Your task to perform on an android device: Go to Wikipedia Image 0: 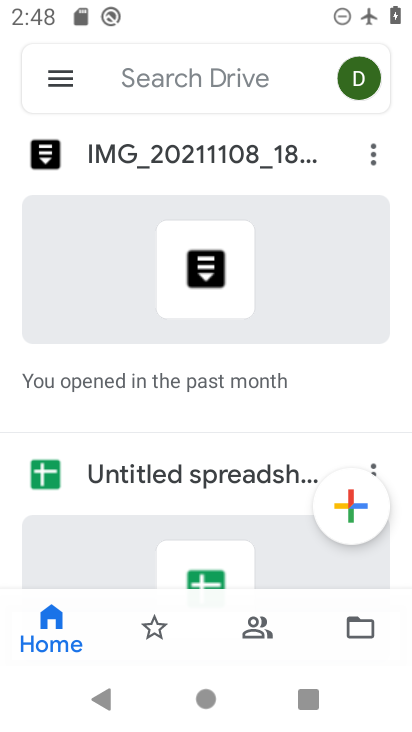
Step 0: press home button
Your task to perform on an android device: Go to Wikipedia Image 1: 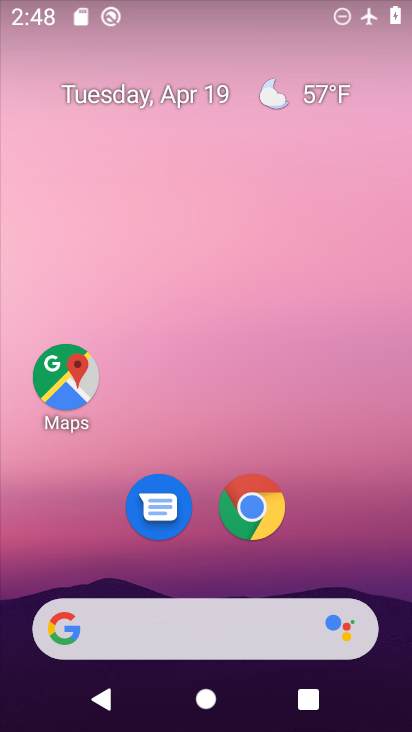
Step 1: click (251, 514)
Your task to perform on an android device: Go to Wikipedia Image 2: 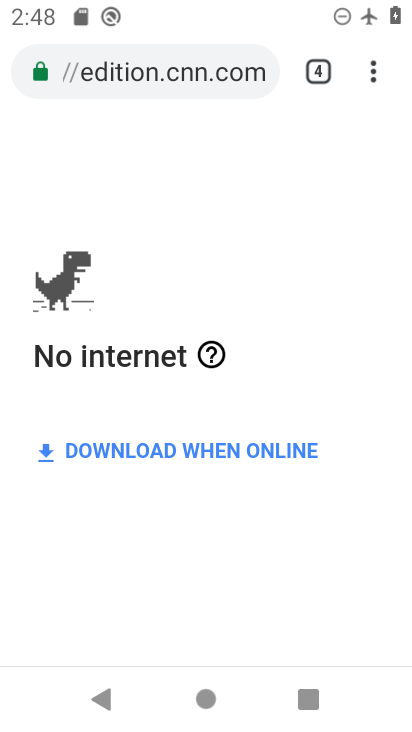
Step 2: task complete